Your task to perform on an android device: Open Reddit.com Image 0: 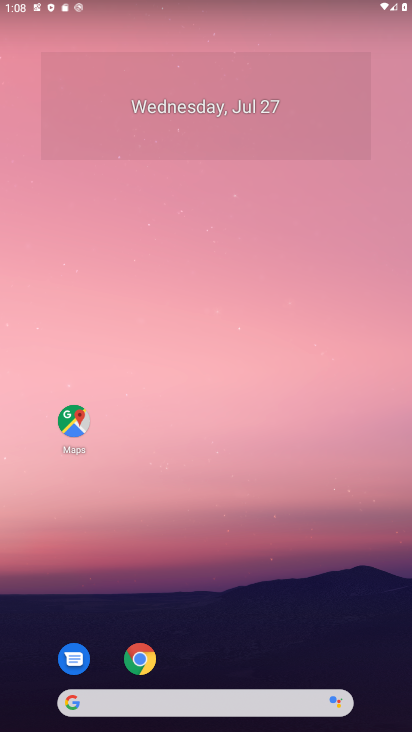
Step 0: drag from (255, 607) to (313, 0)
Your task to perform on an android device: Open Reddit.com Image 1: 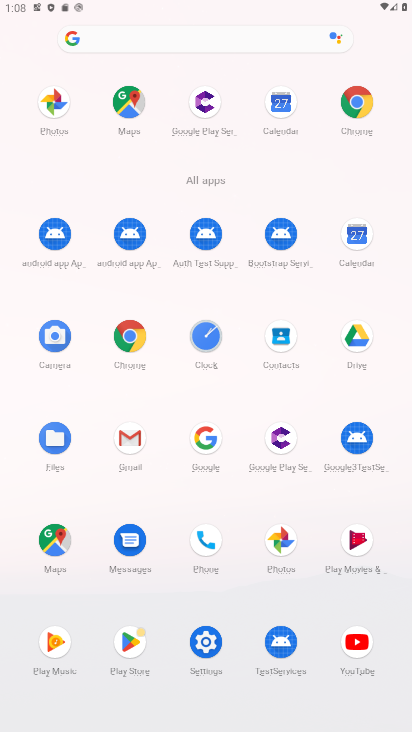
Step 1: click (366, 117)
Your task to perform on an android device: Open Reddit.com Image 2: 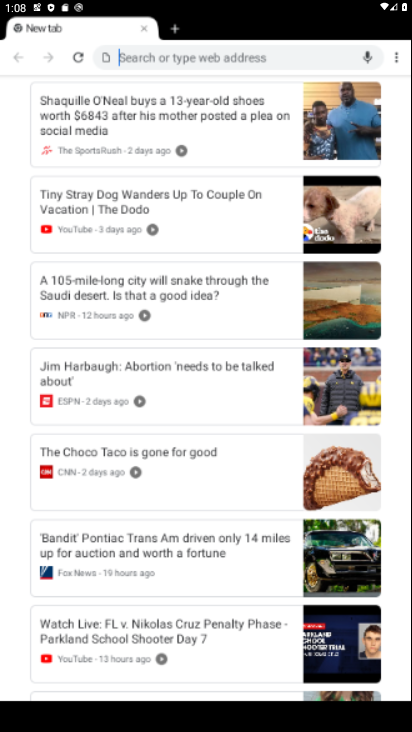
Step 2: drag from (184, 252) to (131, 649)
Your task to perform on an android device: Open Reddit.com Image 3: 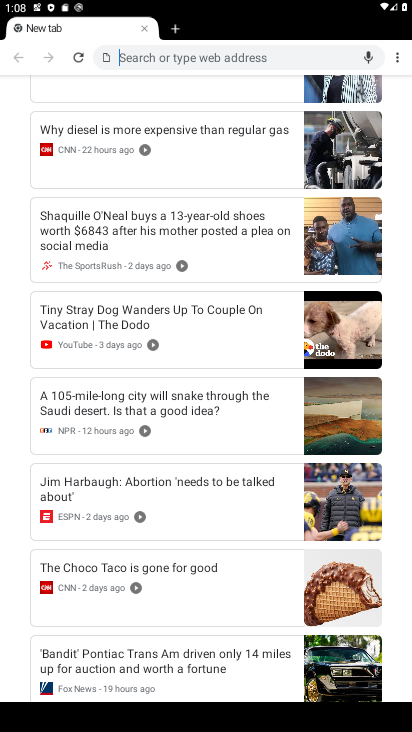
Step 3: type "Reddit.com"
Your task to perform on an android device: Open Reddit.com Image 4: 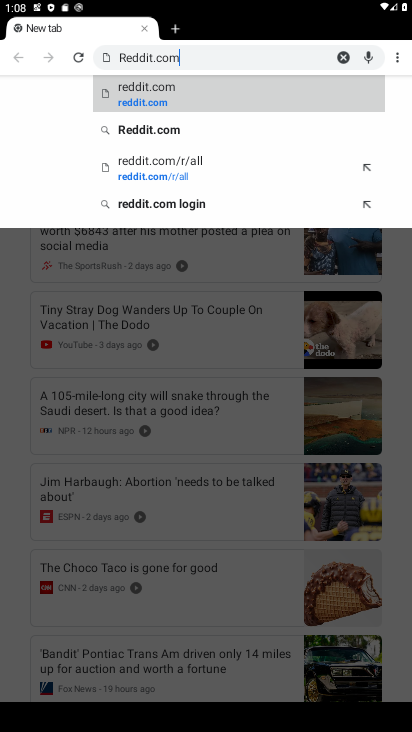
Step 4: click (159, 125)
Your task to perform on an android device: Open Reddit.com Image 5: 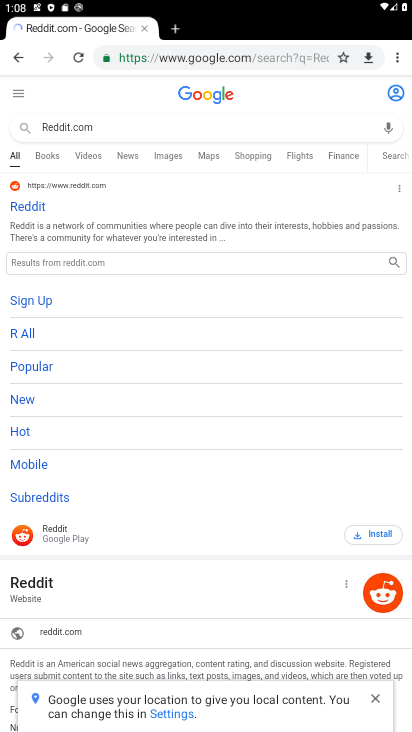
Step 5: click (33, 212)
Your task to perform on an android device: Open Reddit.com Image 6: 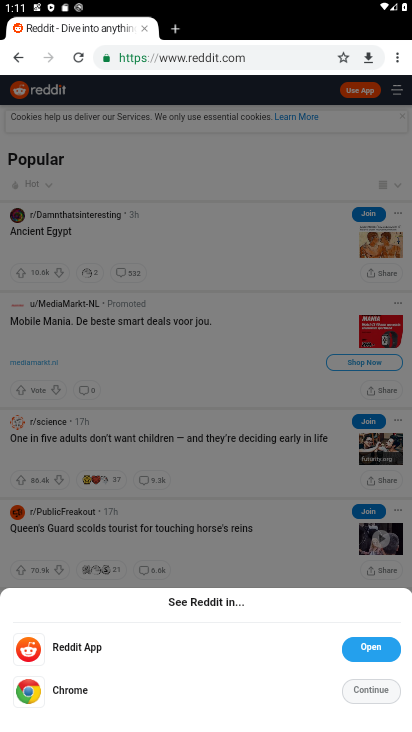
Step 6: task complete